Your task to perform on an android device: open app "Google Calendar" Image 0: 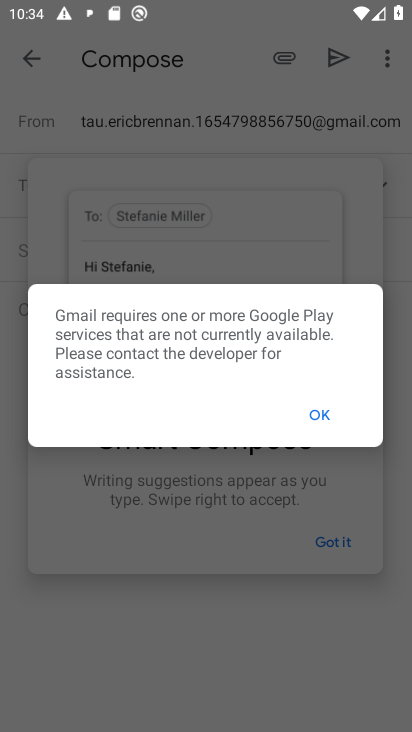
Step 0: press home button
Your task to perform on an android device: open app "Google Calendar" Image 1: 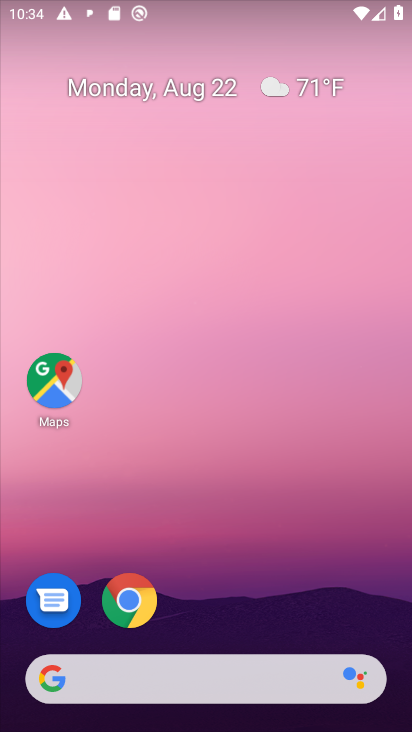
Step 1: drag from (178, 571) to (209, 43)
Your task to perform on an android device: open app "Google Calendar" Image 2: 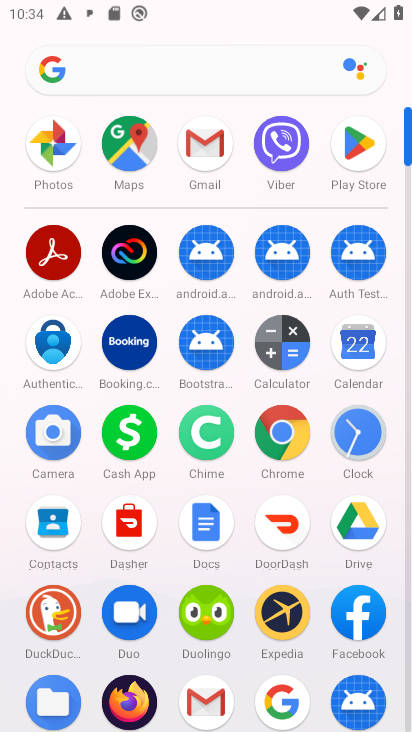
Step 2: click (350, 137)
Your task to perform on an android device: open app "Google Calendar" Image 3: 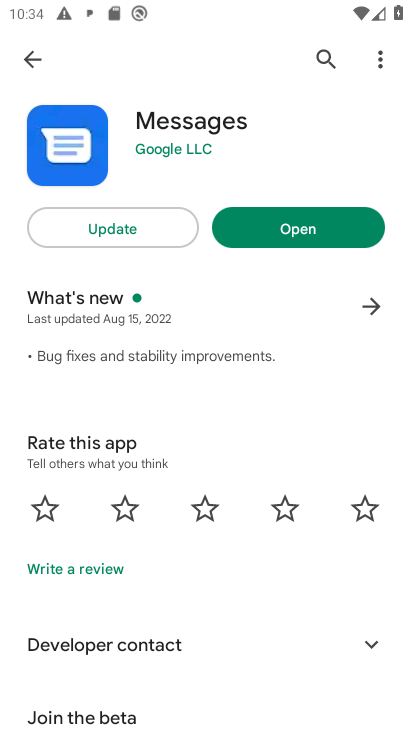
Step 3: click (314, 51)
Your task to perform on an android device: open app "Google Calendar" Image 4: 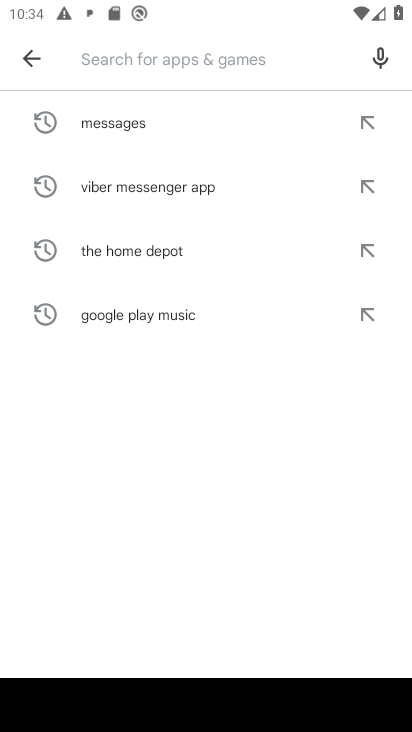
Step 4: type "Google Calendar"
Your task to perform on an android device: open app "Google Calendar" Image 5: 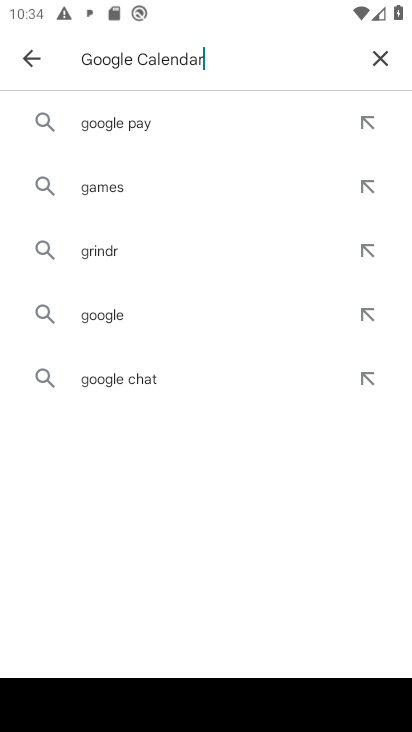
Step 5: type ""
Your task to perform on an android device: open app "Google Calendar" Image 6: 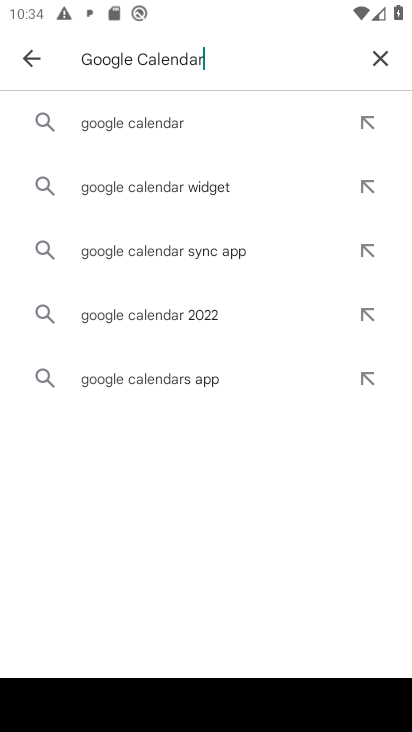
Step 6: click (146, 127)
Your task to perform on an android device: open app "Google Calendar" Image 7: 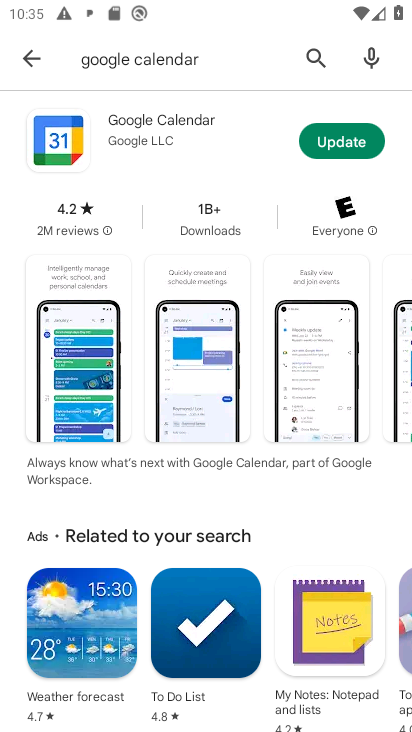
Step 7: click (196, 124)
Your task to perform on an android device: open app "Google Calendar" Image 8: 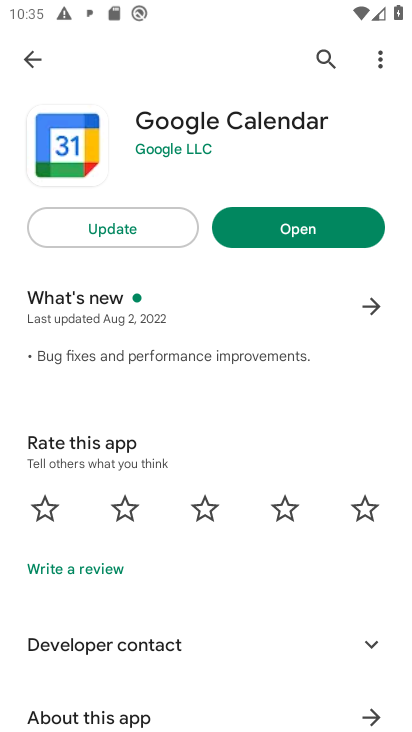
Step 8: click (291, 207)
Your task to perform on an android device: open app "Google Calendar" Image 9: 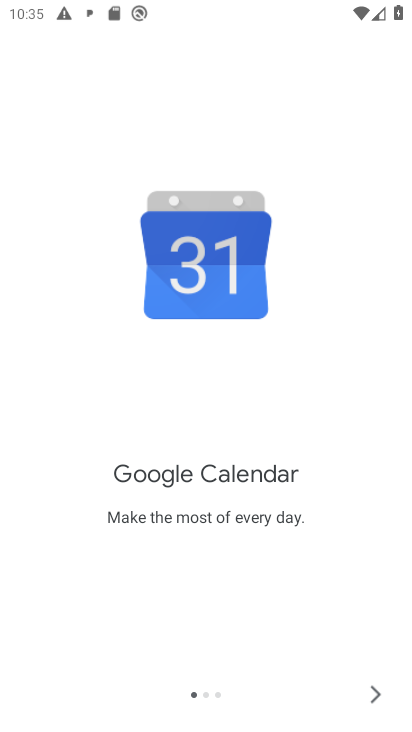
Step 9: task complete